Your task to perform on an android device: Turn off the flashlight Image 0: 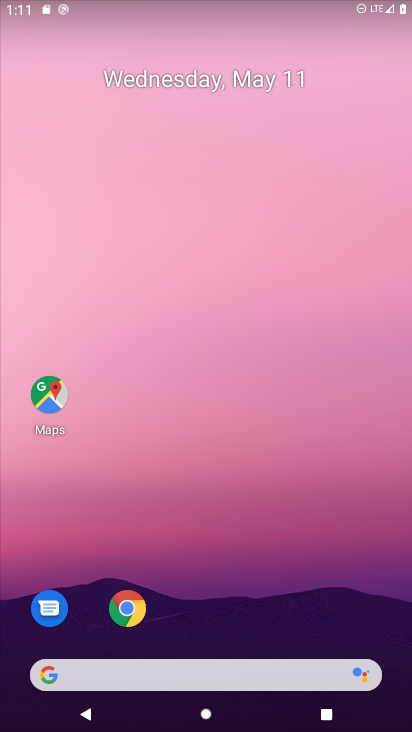
Step 0: drag from (265, 552) to (244, 73)
Your task to perform on an android device: Turn off the flashlight Image 1: 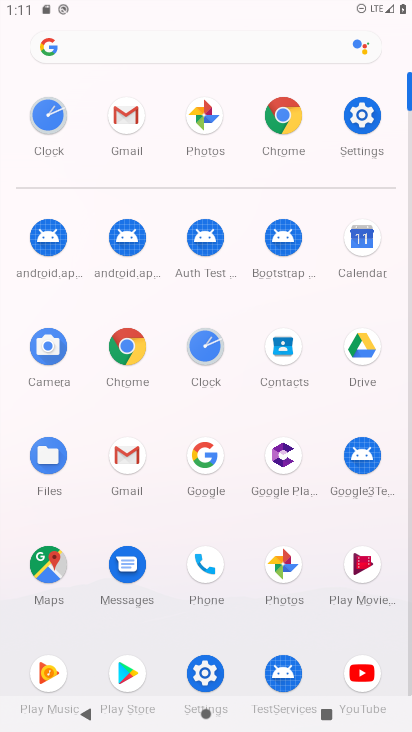
Step 1: click (357, 116)
Your task to perform on an android device: Turn off the flashlight Image 2: 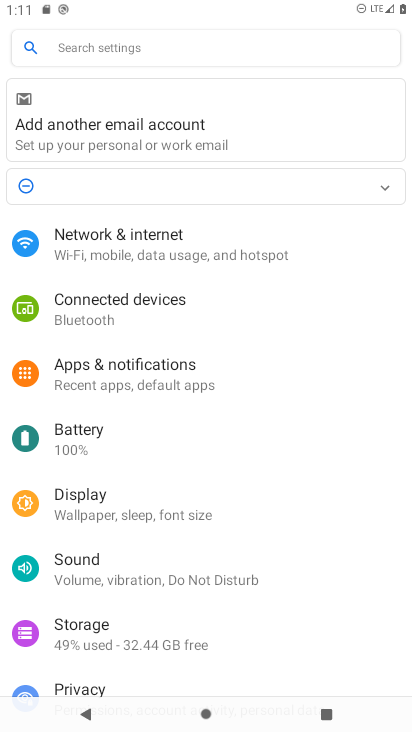
Step 2: click (241, 38)
Your task to perform on an android device: Turn off the flashlight Image 3: 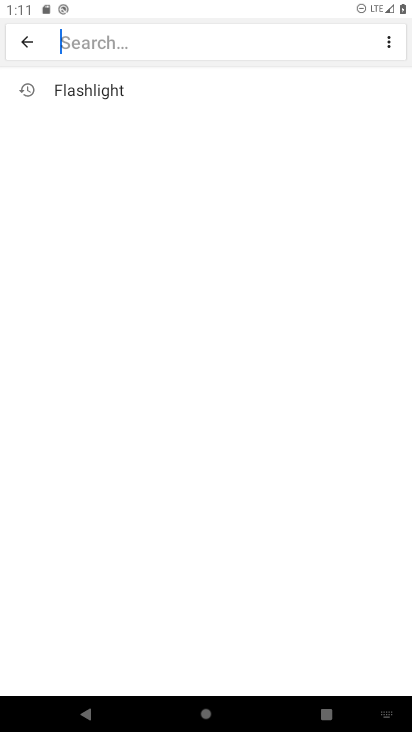
Step 3: click (101, 84)
Your task to perform on an android device: Turn off the flashlight Image 4: 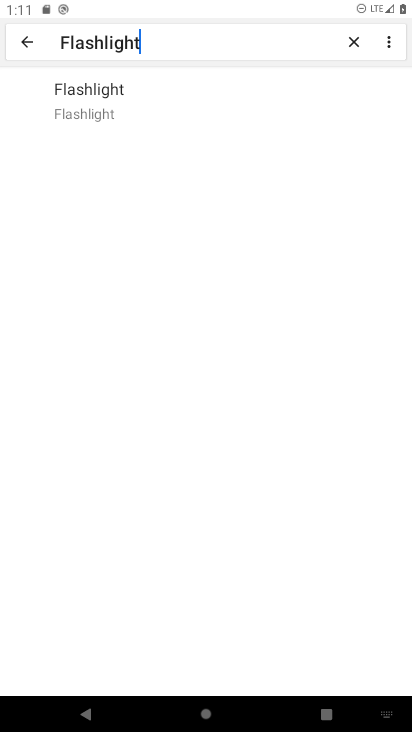
Step 4: task complete